Your task to perform on an android device: Open calendar and show me the second week of next month Image 0: 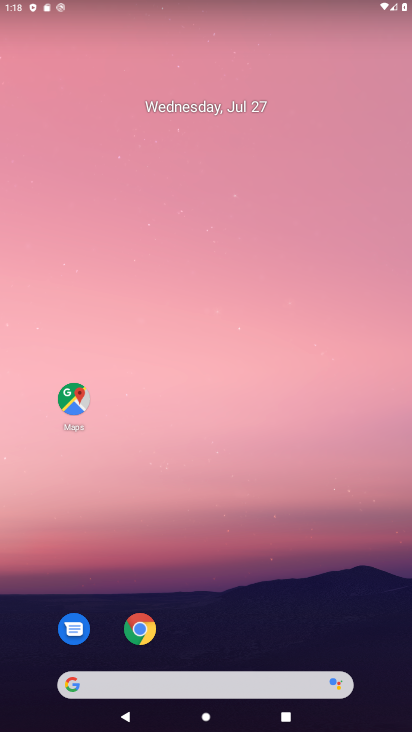
Step 0: drag from (302, 638) to (293, 7)
Your task to perform on an android device: Open calendar and show me the second week of next month Image 1: 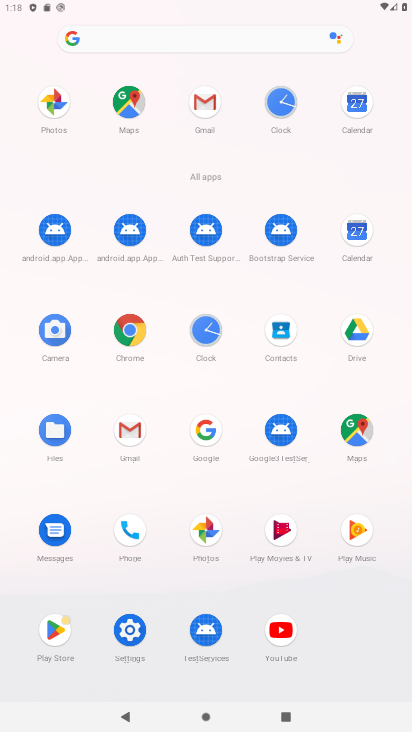
Step 1: click (355, 243)
Your task to perform on an android device: Open calendar and show me the second week of next month Image 2: 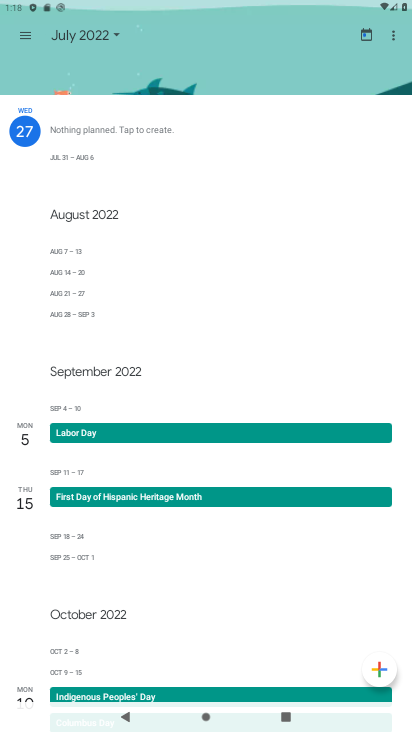
Step 2: click (21, 41)
Your task to perform on an android device: Open calendar and show me the second week of next month Image 3: 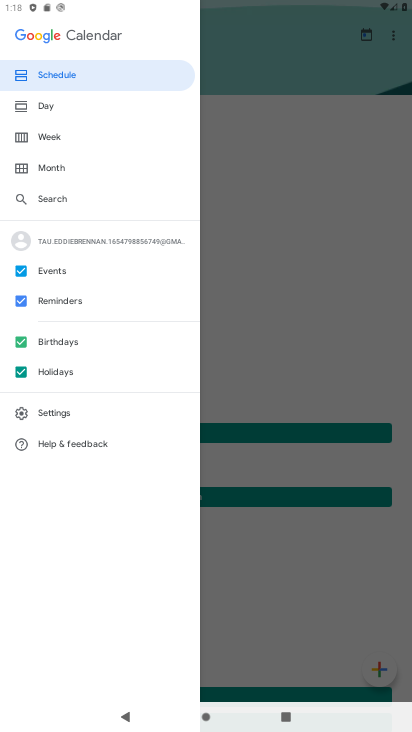
Step 3: click (58, 138)
Your task to perform on an android device: Open calendar and show me the second week of next month Image 4: 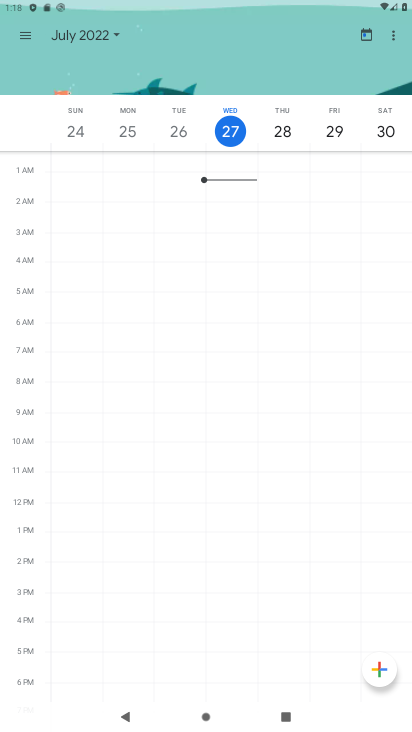
Step 4: click (91, 39)
Your task to perform on an android device: Open calendar and show me the second week of next month Image 5: 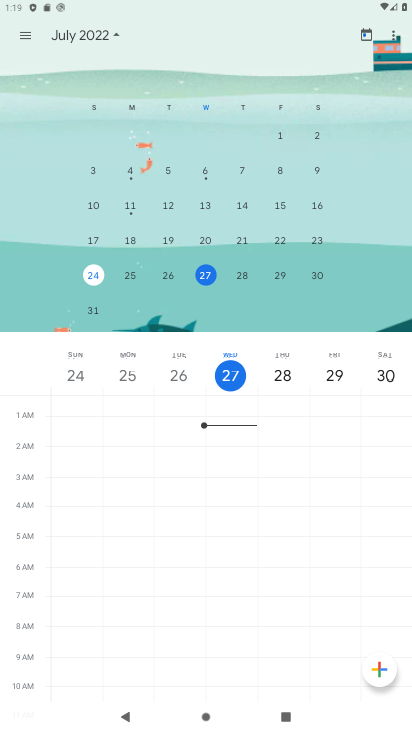
Step 5: drag from (351, 224) to (53, 181)
Your task to perform on an android device: Open calendar and show me the second week of next month Image 6: 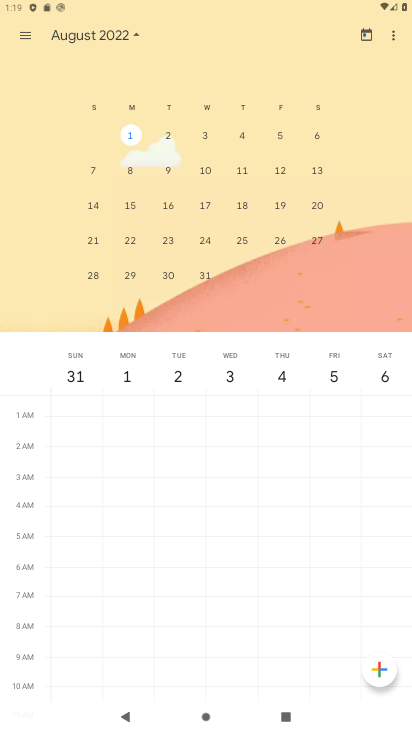
Step 6: click (204, 174)
Your task to perform on an android device: Open calendar and show me the second week of next month Image 7: 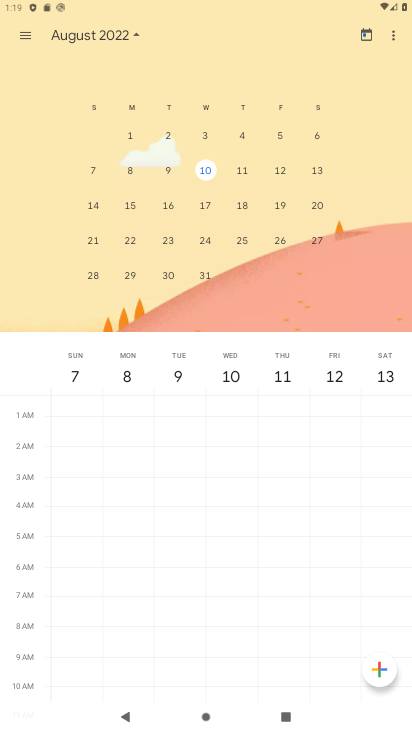
Step 7: task complete